Your task to perform on an android device: turn vacation reply on in the gmail app Image 0: 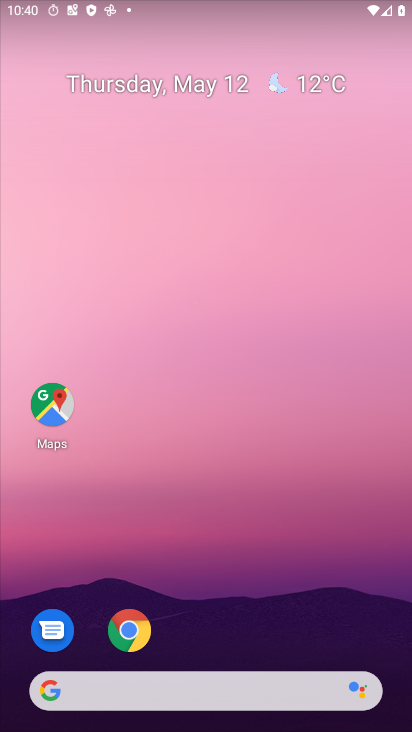
Step 0: drag from (281, 691) to (271, 194)
Your task to perform on an android device: turn vacation reply on in the gmail app Image 1: 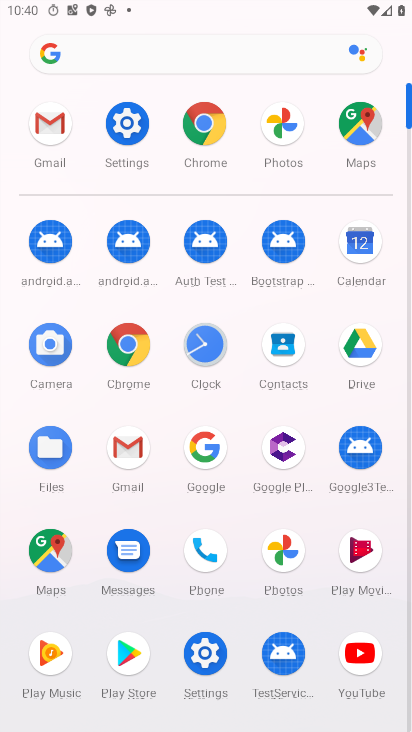
Step 1: click (111, 451)
Your task to perform on an android device: turn vacation reply on in the gmail app Image 2: 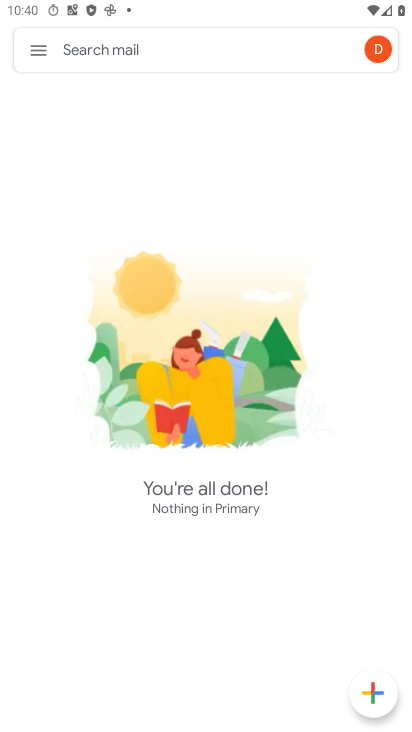
Step 2: press home button
Your task to perform on an android device: turn vacation reply on in the gmail app Image 3: 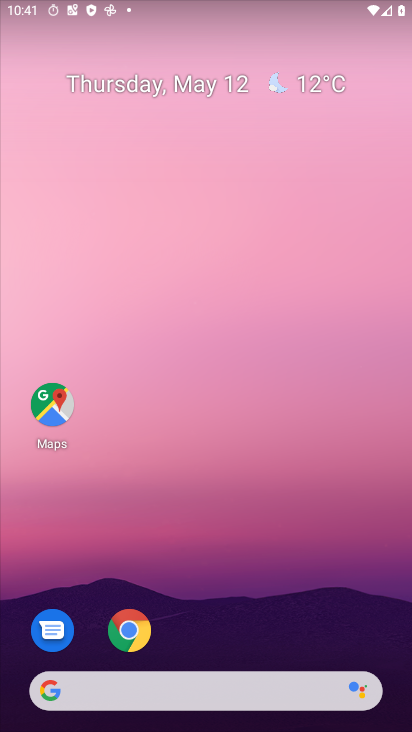
Step 3: drag from (177, 676) to (189, 222)
Your task to perform on an android device: turn vacation reply on in the gmail app Image 4: 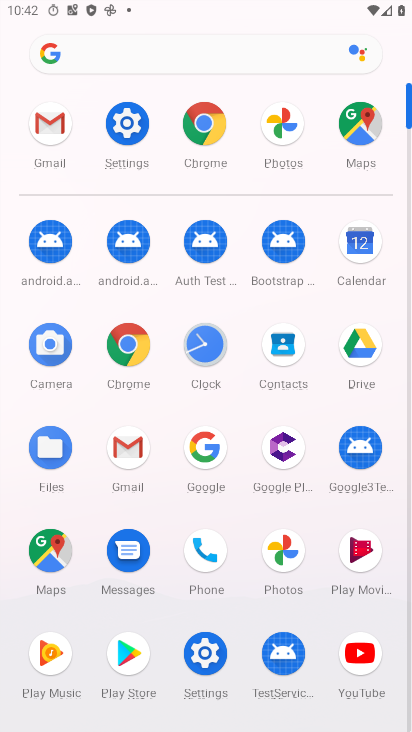
Step 4: click (136, 446)
Your task to perform on an android device: turn vacation reply on in the gmail app Image 5: 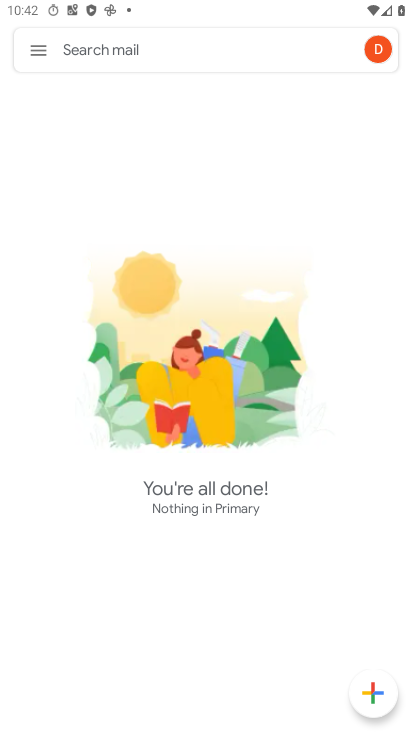
Step 5: click (35, 60)
Your task to perform on an android device: turn vacation reply on in the gmail app Image 6: 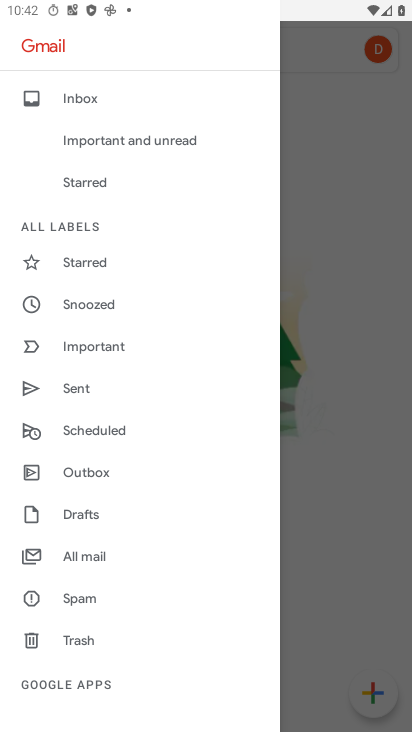
Step 6: drag from (98, 616) to (96, 194)
Your task to perform on an android device: turn vacation reply on in the gmail app Image 7: 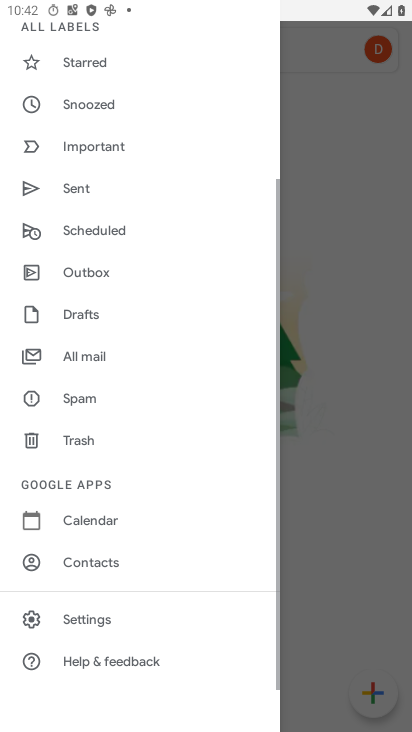
Step 7: click (90, 614)
Your task to perform on an android device: turn vacation reply on in the gmail app Image 8: 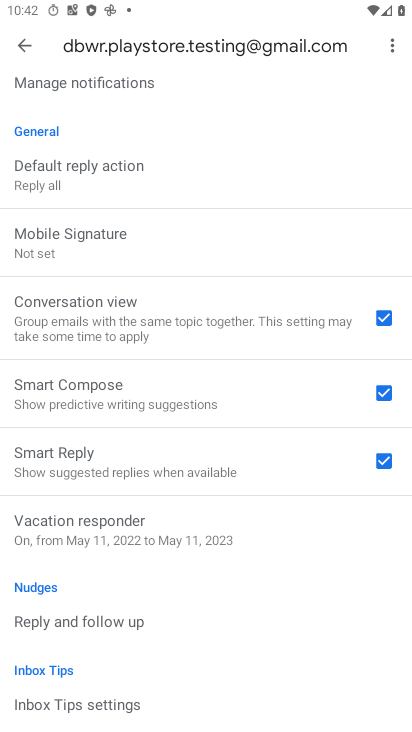
Step 8: task complete